Your task to perform on an android device: Do I have any events this weekend? Image 0: 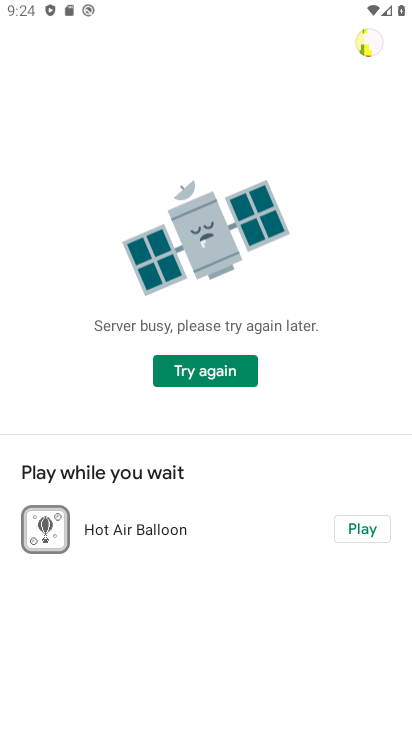
Step 0: press home button
Your task to perform on an android device: Do I have any events this weekend? Image 1: 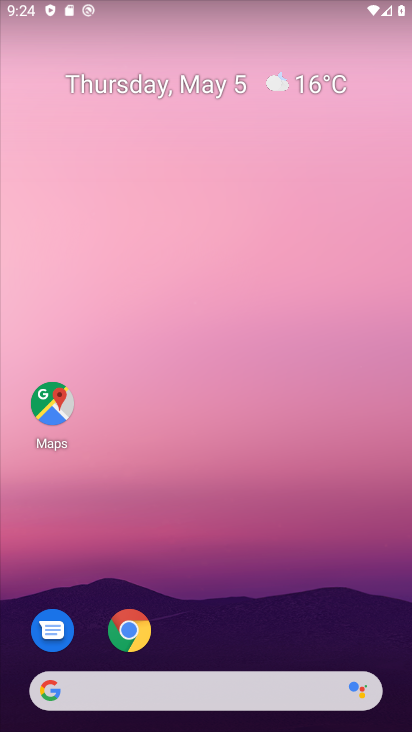
Step 1: drag from (249, 596) to (246, 81)
Your task to perform on an android device: Do I have any events this weekend? Image 2: 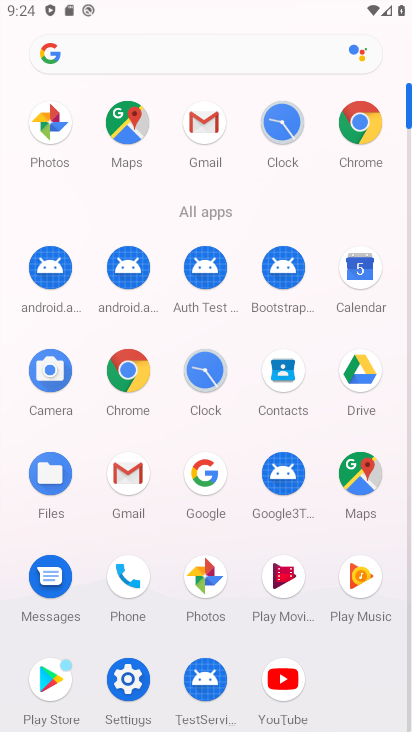
Step 2: click (360, 296)
Your task to perform on an android device: Do I have any events this weekend? Image 3: 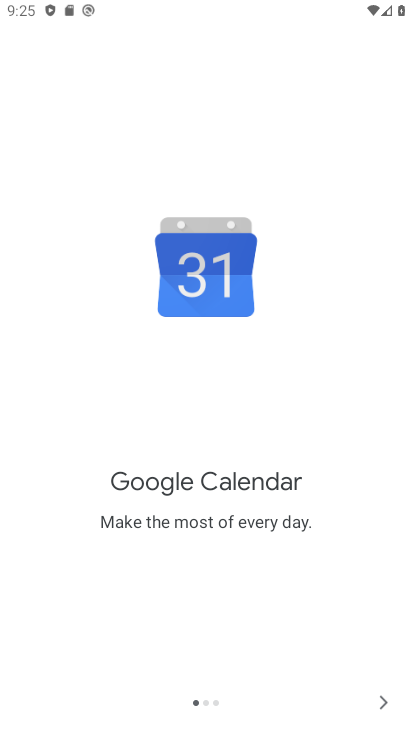
Step 3: click (376, 712)
Your task to perform on an android device: Do I have any events this weekend? Image 4: 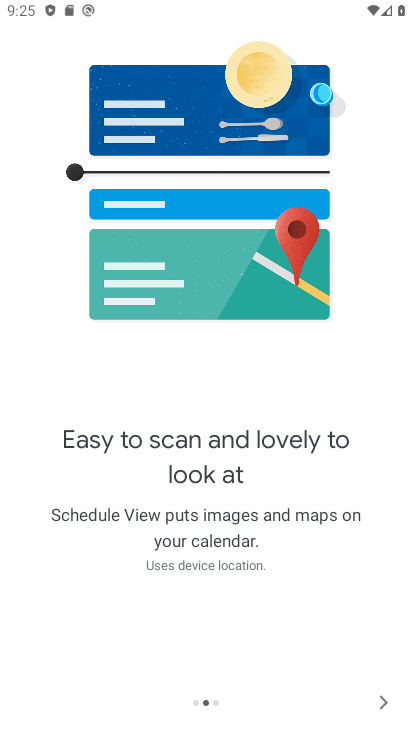
Step 4: click (376, 712)
Your task to perform on an android device: Do I have any events this weekend? Image 5: 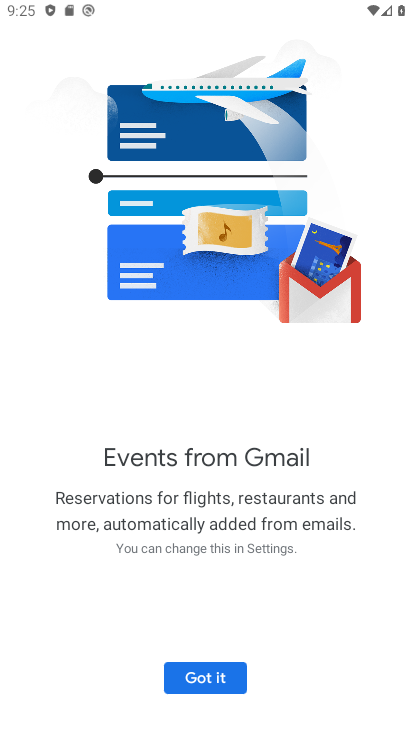
Step 5: click (232, 688)
Your task to perform on an android device: Do I have any events this weekend? Image 6: 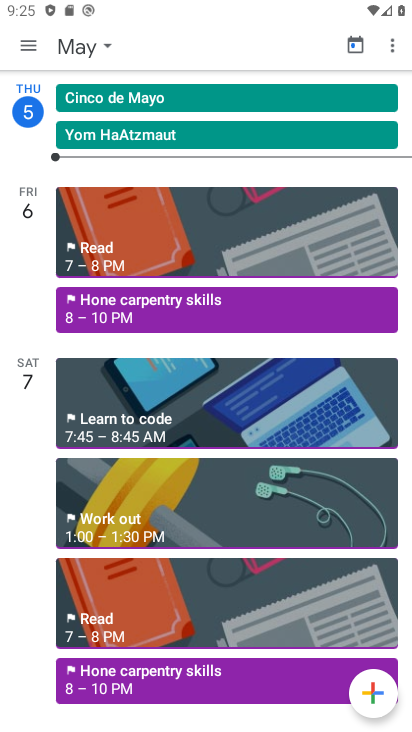
Step 6: click (25, 47)
Your task to perform on an android device: Do I have any events this weekend? Image 7: 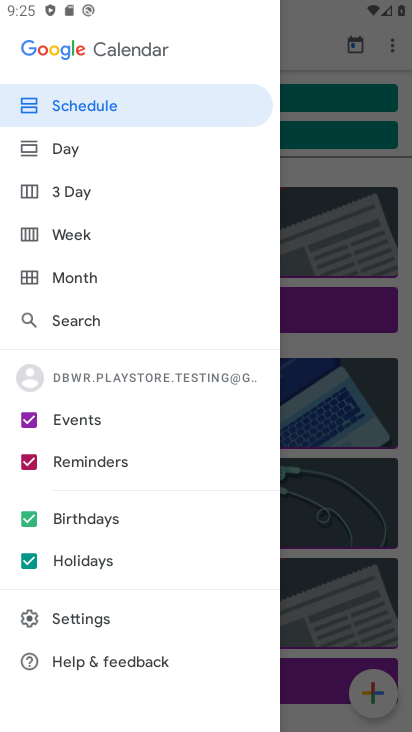
Step 7: click (96, 422)
Your task to perform on an android device: Do I have any events this weekend? Image 8: 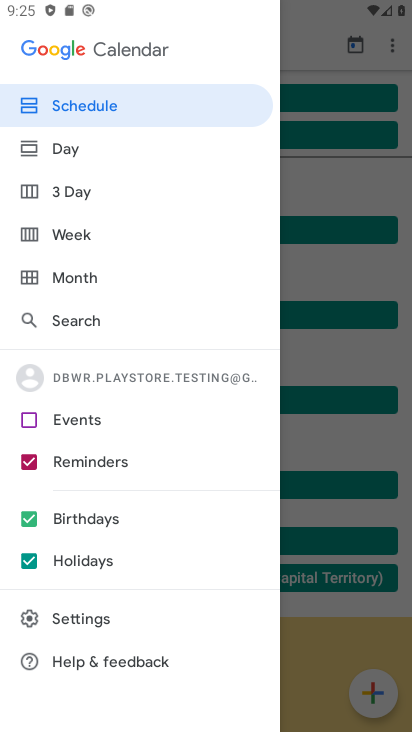
Step 8: click (96, 422)
Your task to perform on an android device: Do I have any events this weekend? Image 9: 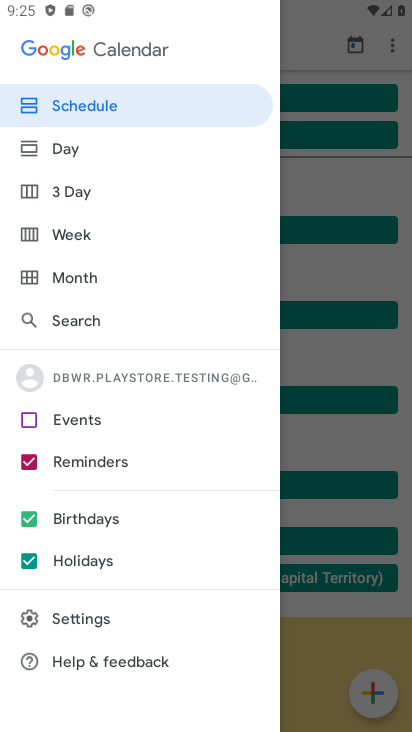
Step 9: click (22, 424)
Your task to perform on an android device: Do I have any events this weekend? Image 10: 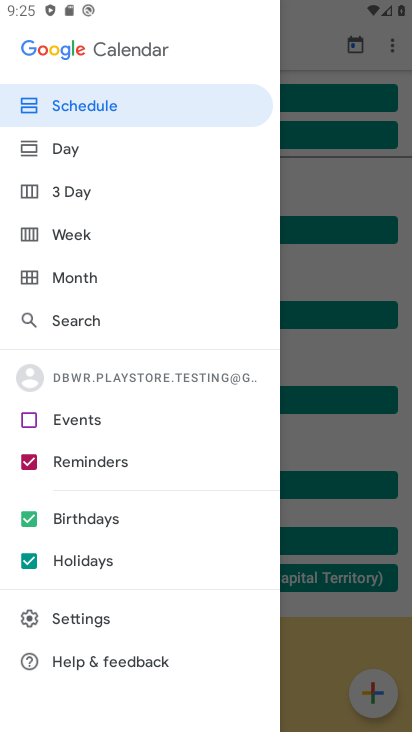
Step 10: click (29, 423)
Your task to perform on an android device: Do I have any events this weekend? Image 11: 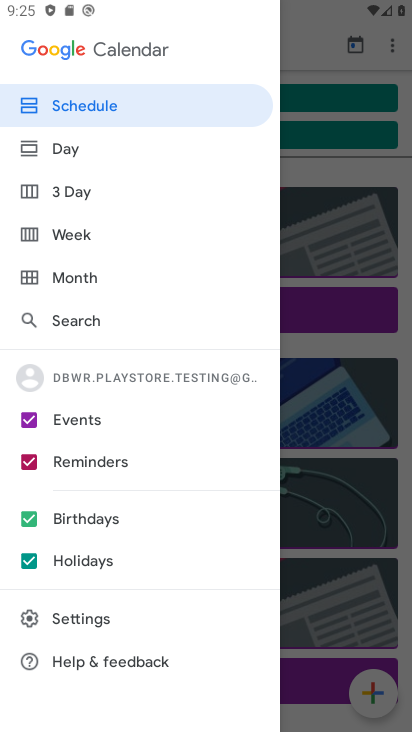
Step 11: click (317, 31)
Your task to perform on an android device: Do I have any events this weekend? Image 12: 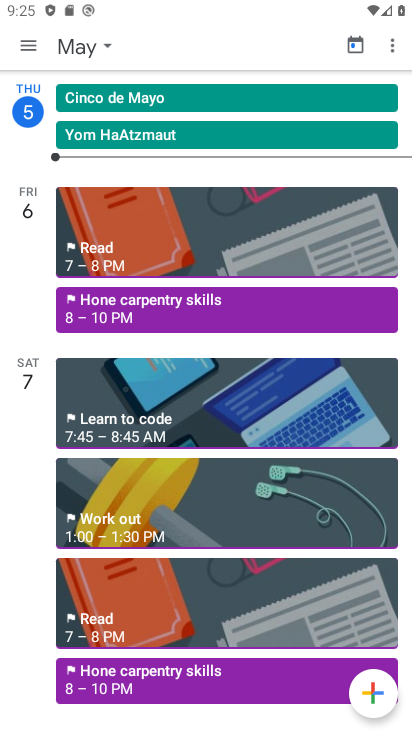
Step 12: task complete